Your task to perform on an android device: Go to Android settings Image 0: 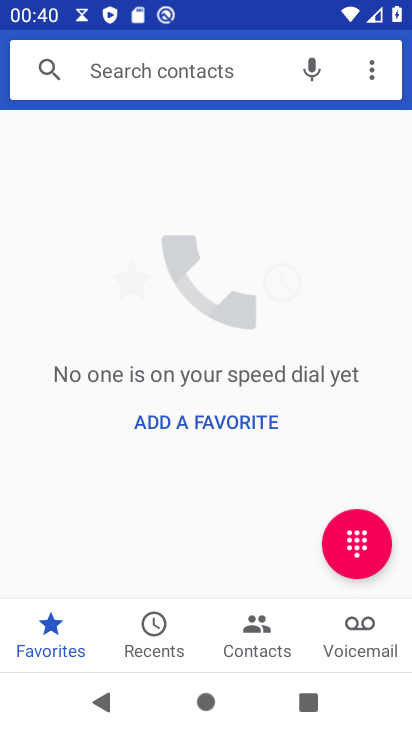
Step 0: press home button
Your task to perform on an android device: Go to Android settings Image 1: 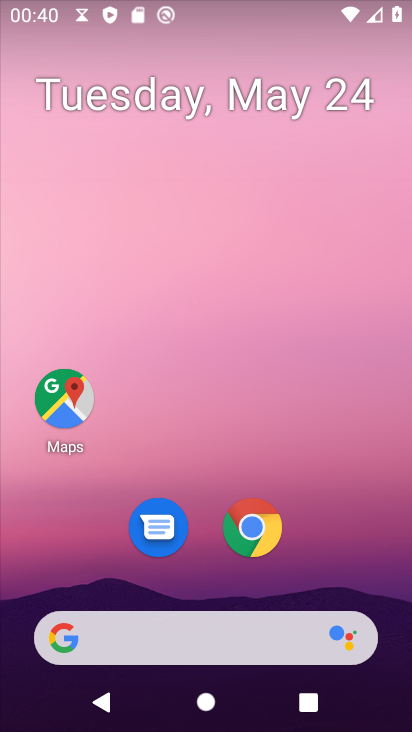
Step 1: drag from (208, 519) to (339, 113)
Your task to perform on an android device: Go to Android settings Image 2: 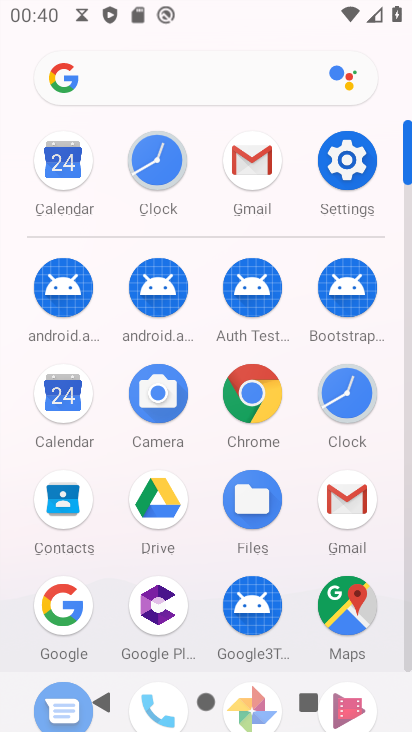
Step 2: click (345, 183)
Your task to perform on an android device: Go to Android settings Image 3: 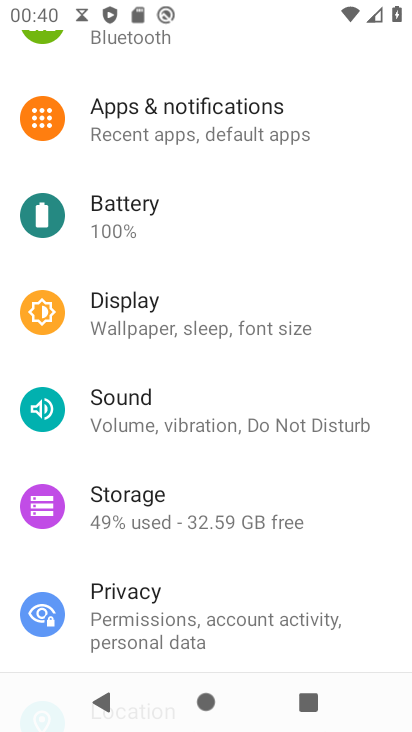
Step 3: task complete